Your task to perform on an android device: Open Chrome and go to settings Image 0: 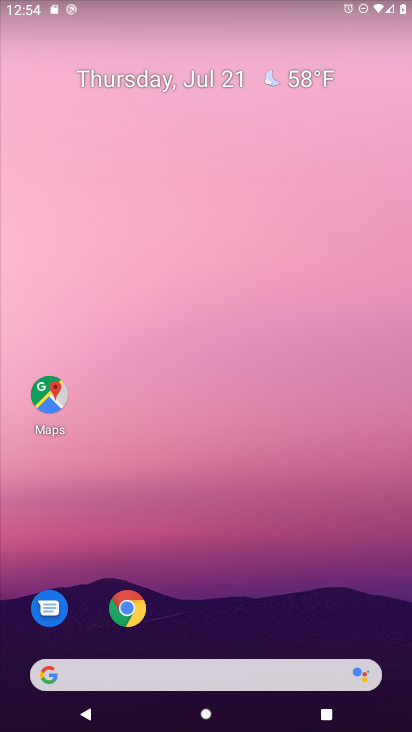
Step 0: press home button
Your task to perform on an android device: Open Chrome and go to settings Image 1: 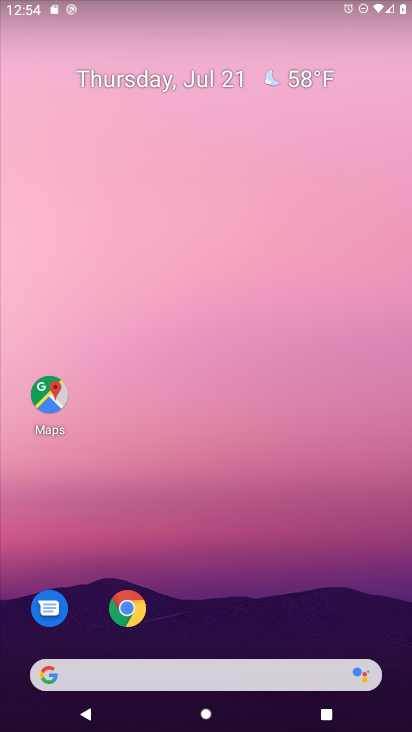
Step 1: drag from (232, 624) to (195, 204)
Your task to perform on an android device: Open Chrome and go to settings Image 2: 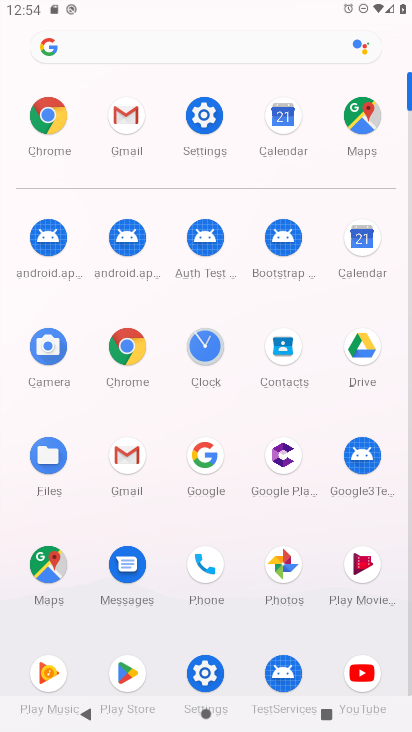
Step 2: click (56, 117)
Your task to perform on an android device: Open Chrome and go to settings Image 3: 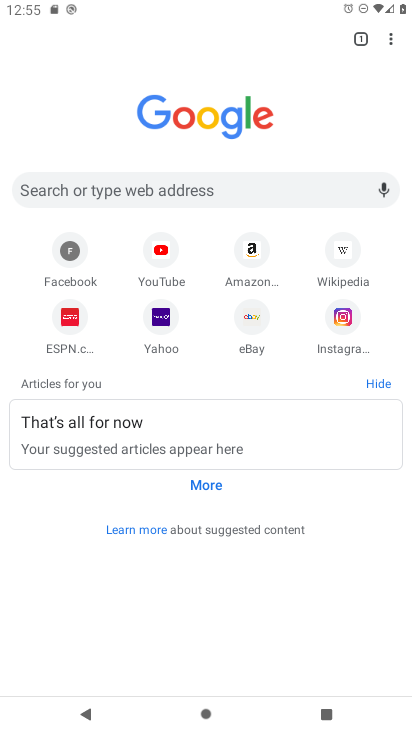
Step 3: task complete